Your task to perform on an android device: check data usage Image 0: 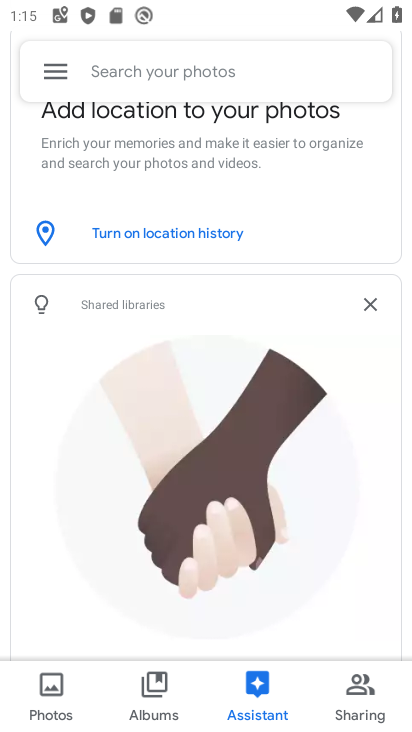
Step 0: press home button
Your task to perform on an android device: check data usage Image 1: 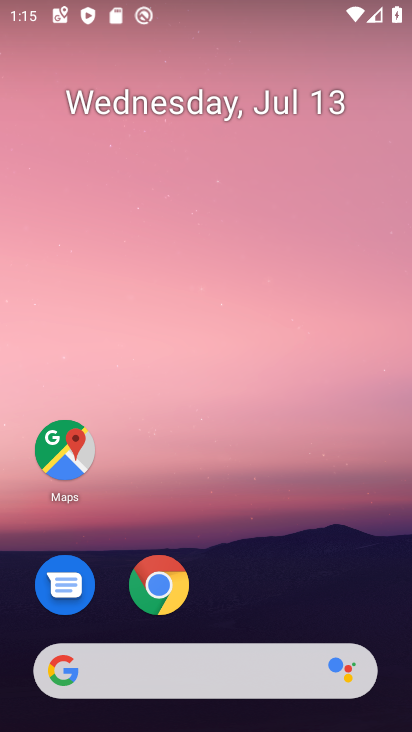
Step 1: drag from (156, 665) to (286, 13)
Your task to perform on an android device: check data usage Image 2: 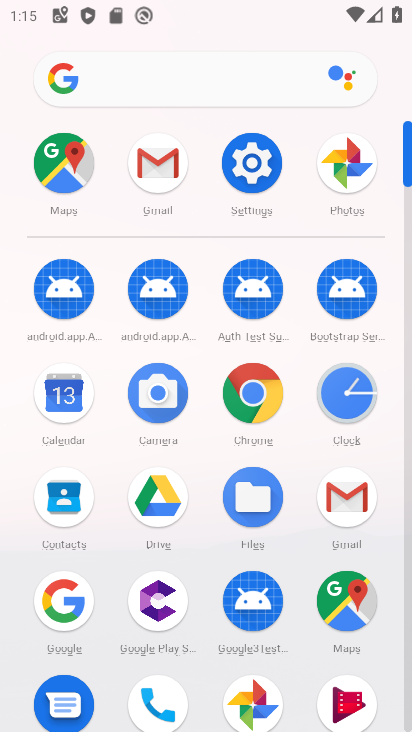
Step 2: click (242, 159)
Your task to perform on an android device: check data usage Image 3: 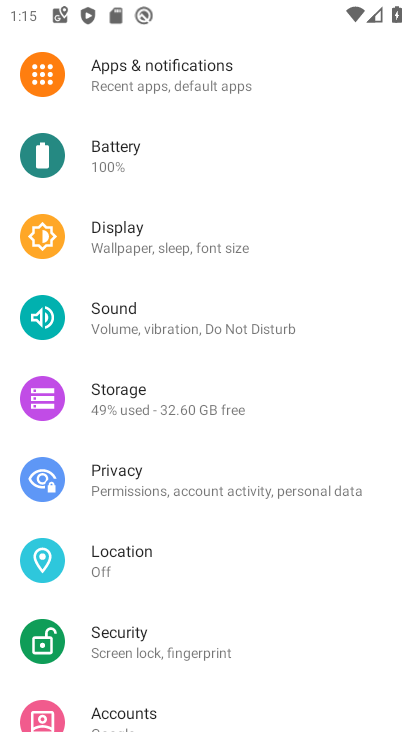
Step 3: drag from (255, 131) to (277, 626)
Your task to perform on an android device: check data usage Image 4: 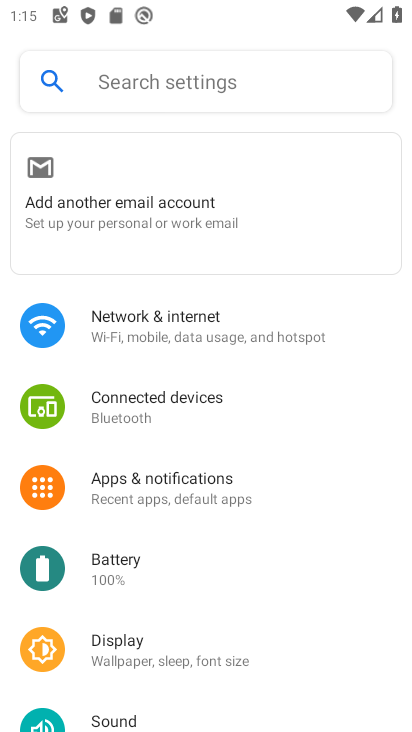
Step 4: click (168, 299)
Your task to perform on an android device: check data usage Image 5: 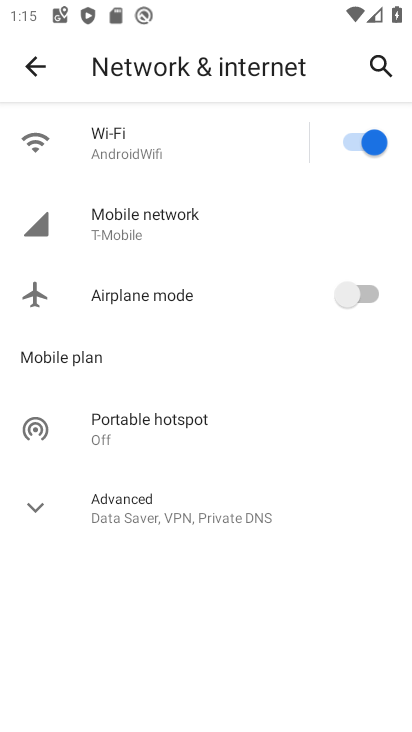
Step 5: click (129, 156)
Your task to perform on an android device: check data usage Image 6: 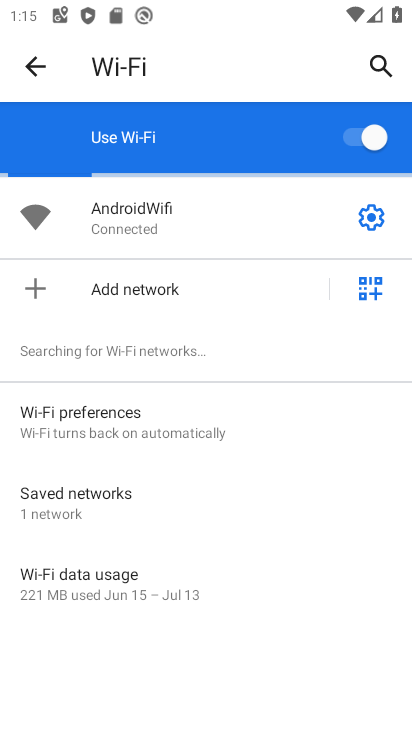
Step 6: click (111, 575)
Your task to perform on an android device: check data usage Image 7: 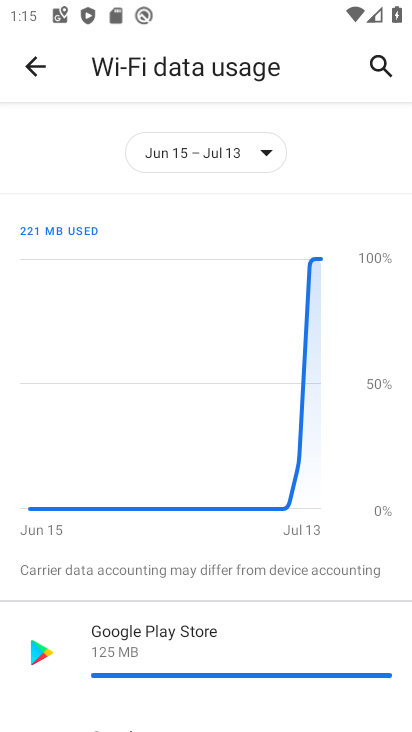
Step 7: task complete